Your task to perform on an android device: Go to Google Image 0: 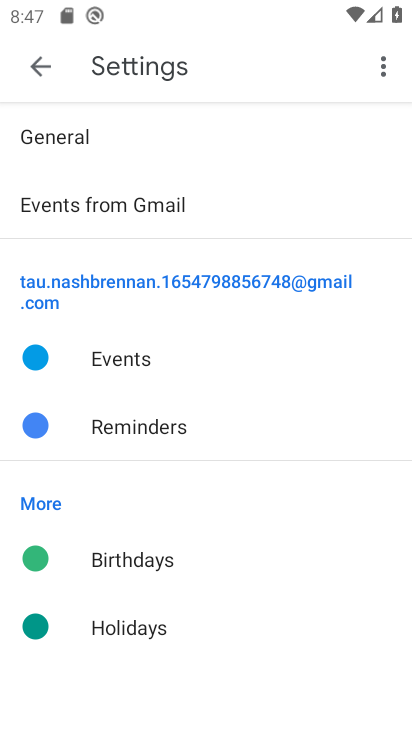
Step 0: press home button
Your task to perform on an android device: Go to Google Image 1: 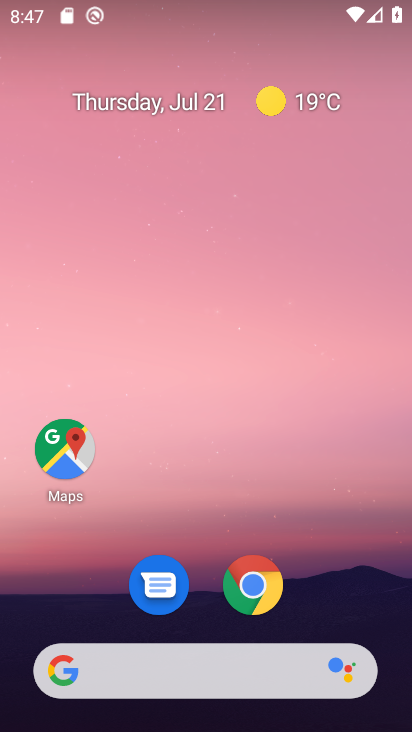
Step 1: click (175, 669)
Your task to perform on an android device: Go to Google Image 2: 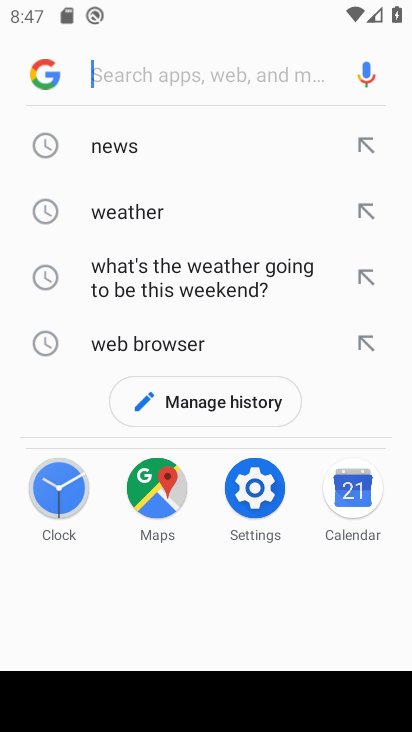
Step 2: click (41, 74)
Your task to perform on an android device: Go to Google Image 3: 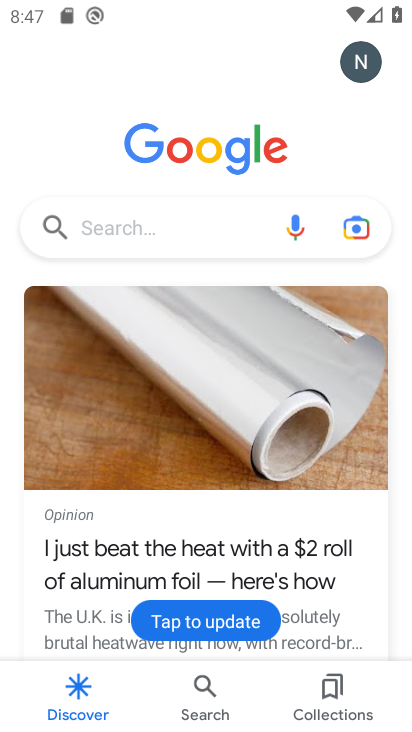
Step 3: task complete